Your task to perform on an android device: turn off smart reply in the gmail app Image 0: 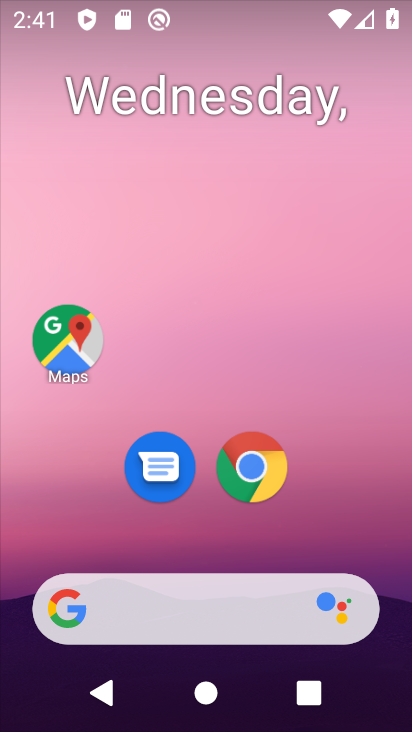
Step 0: drag from (116, 575) to (207, 161)
Your task to perform on an android device: turn off smart reply in the gmail app Image 1: 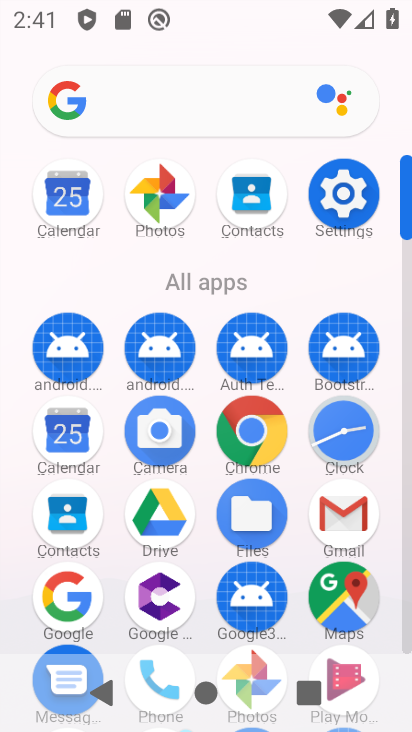
Step 1: drag from (182, 653) to (242, 455)
Your task to perform on an android device: turn off smart reply in the gmail app Image 2: 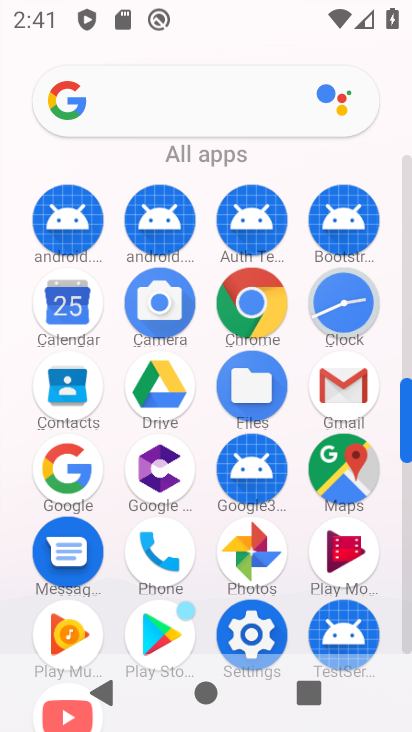
Step 2: click (332, 383)
Your task to perform on an android device: turn off smart reply in the gmail app Image 3: 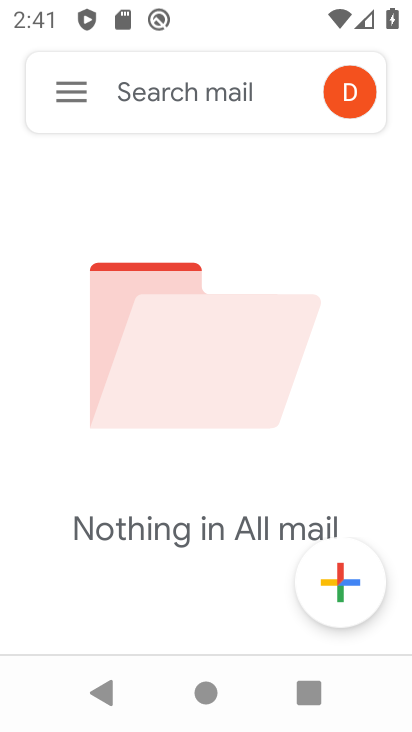
Step 3: click (99, 92)
Your task to perform on an android device: turn off smart reply in the gmail app Image 4: 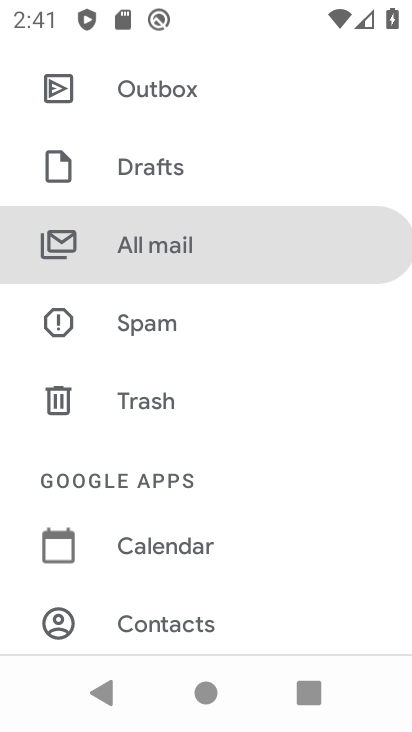
Step 4: drag from (176, 577) to (280, 254)
Your task to perform on an android device: turn off smart reply in the gmail app Image 5: 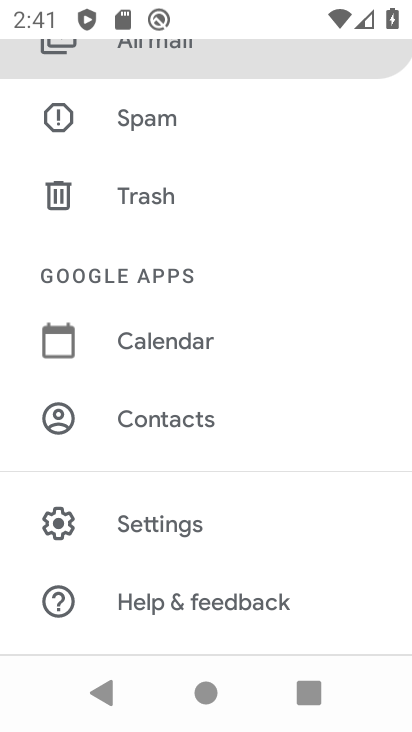
Step 5: click (171, 539)
Your task to perform on an android device: turn off smart reply in the gmail app Image 6: 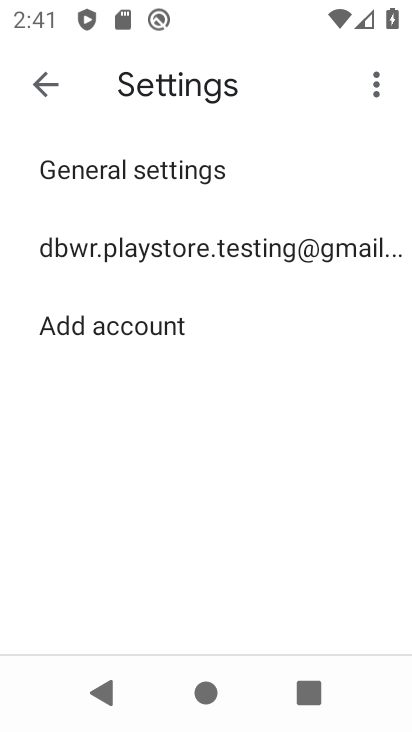
Step 6: drag from (127, 553) to (216, 275)
Your task to perform on an android device: turn off smart reply in the gmail app Image 7: 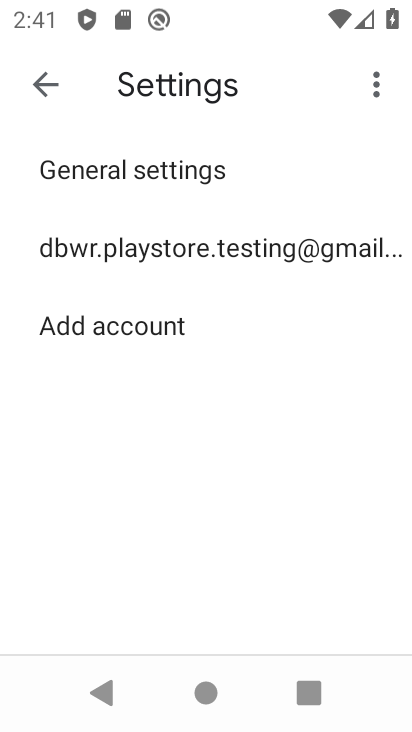
Step 7: click (247, 245)
Your task to perform on an android device: turn off smart reply in the gmail app Image 8: 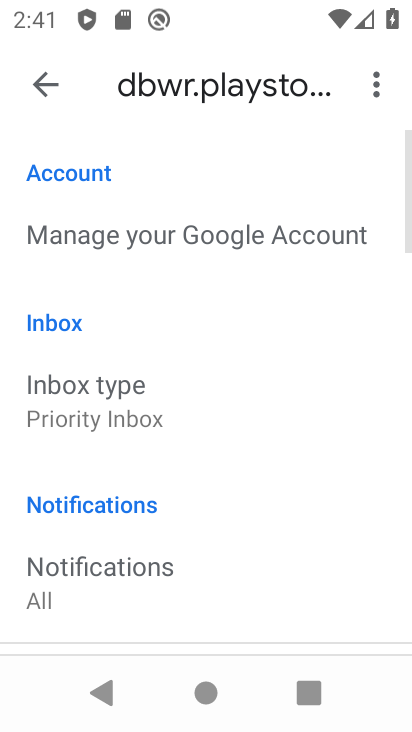
Step 8: drag from (168, 580) to (323, 157)
Your task to perform on an android device: turn off smart reply in the gmail app Image 9: 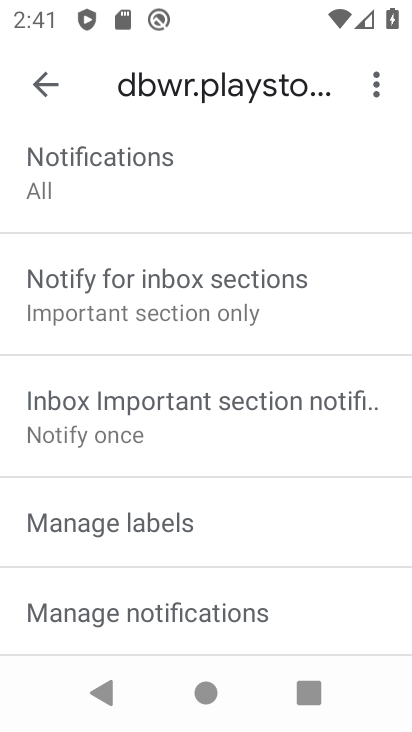
Step 9: drag from (132, 573) to (275, 193)
Your task to perform on an android device: turn off smart reply in the gmail app Image 10: 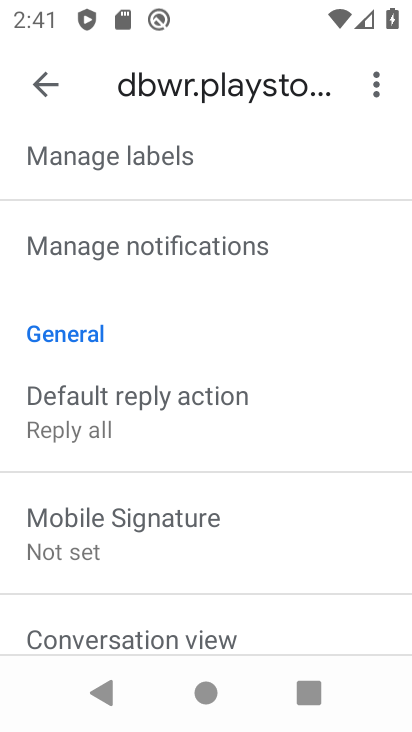
Step 10: drag from (181, 517) to (294, 248)
Your task to perform on an android device: turn off smart reply in the gmail app Image 11: 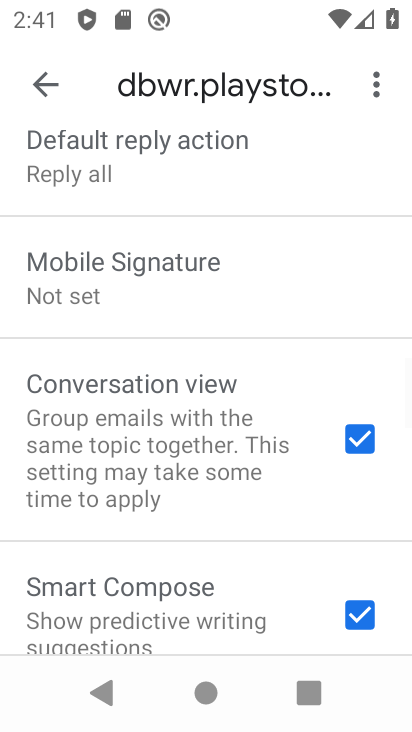
Step 11: drag from (154, 569) to (270, 179)
Your task to perform on an android device: turn off smart reply in the gmail app Image 12: 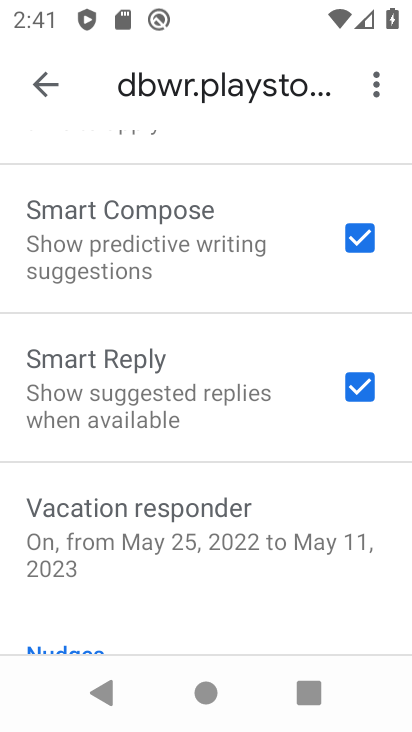
Step 12: click (364, 400)
Your task to perform on an android device: turn off smart reply in the gmail app Image 13: 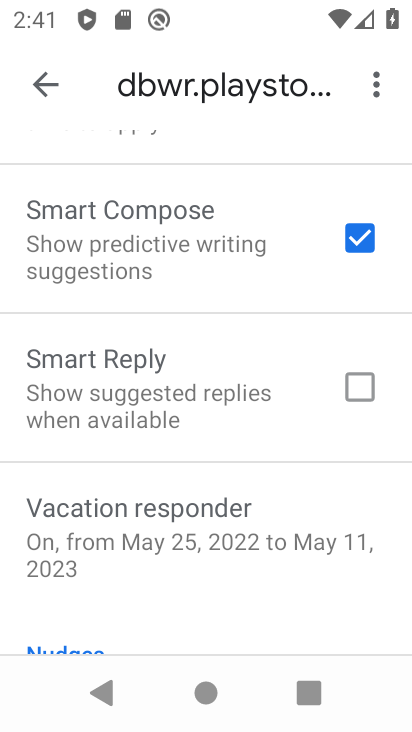
Step 13: task complete